Your task to perform on an android device: Open calendar and show me the fourth week of next month Image 0: 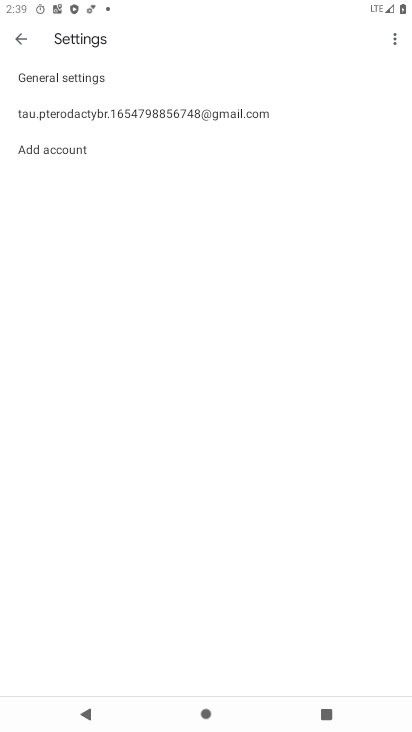
Step 0: press home button
Your task to perform on an android device: Open calendar and show me the fourth week of next month Image 1: 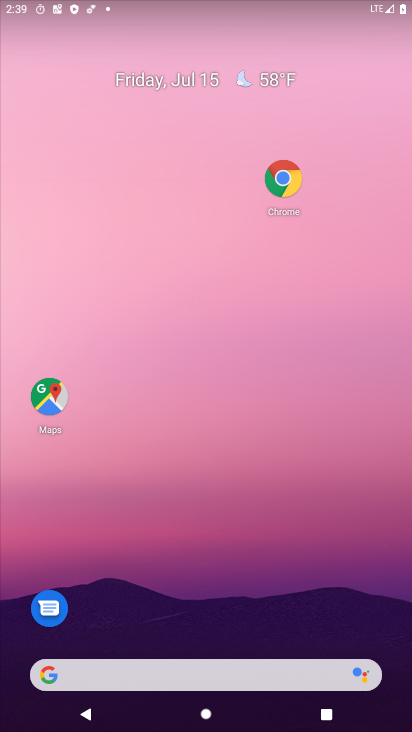
Step 1: drag from (281, 571) to (283, 43)
Your task to perform on an android device: Open calendar and show me the fourth week of next month Image 2: 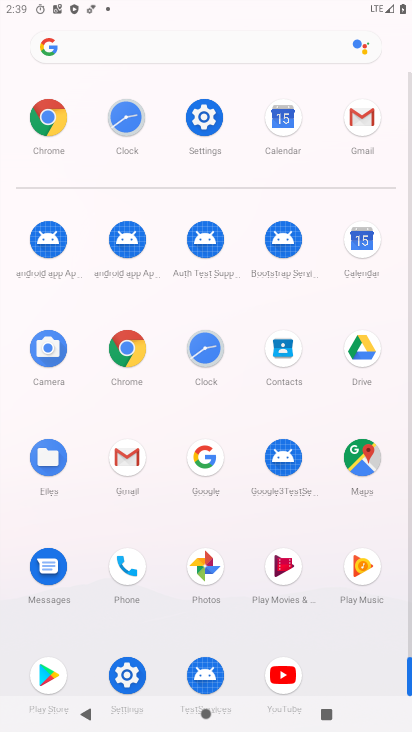
Step 2: click (360, 233)
Your task to perform on an android device: Open calendar and show me the fourth week of next month Image 3: 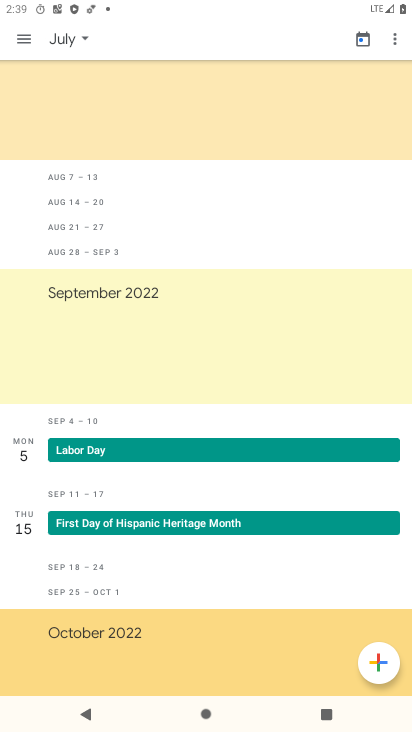
Step 3: click (61, 34)
Your task to perform on an android device: Open calendar and show me the fourth week of next month Image 4: 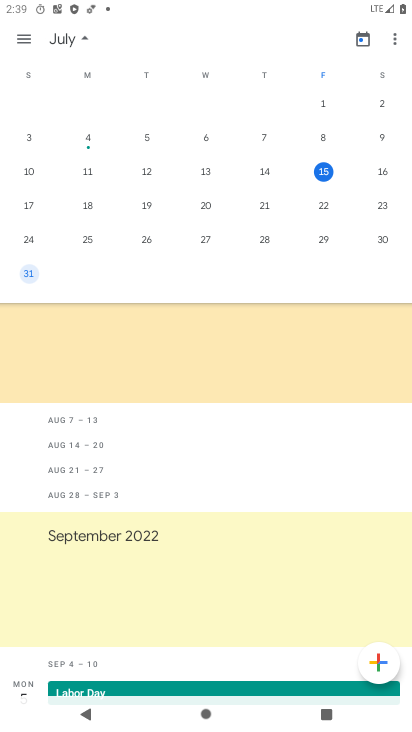
Step 4: drag from (373, 183) to (2, 181)
Your task to perform on an android device: Open calendar and show me the fourth week of next month Image 5: 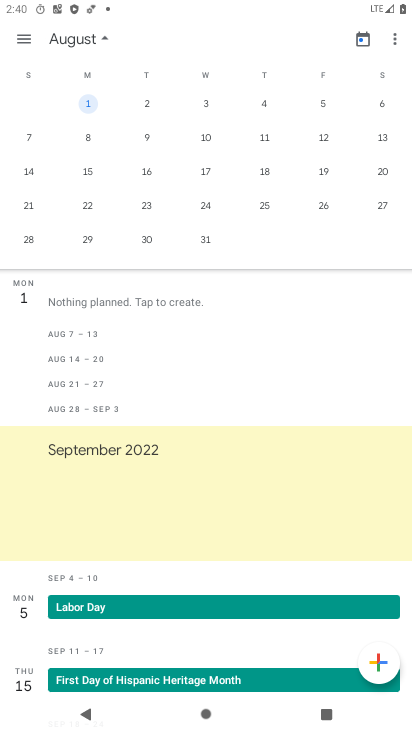
Step 5: click (210, 204)
Your task to perform on an android device: Open calendar and show me the fourth week of next month Image 6: 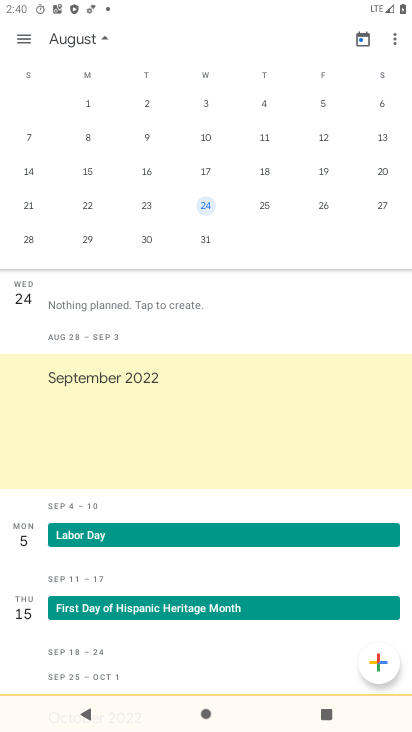
Step 6: task complete